Your task to perform on an android device: Go to privacy settings Image 0: 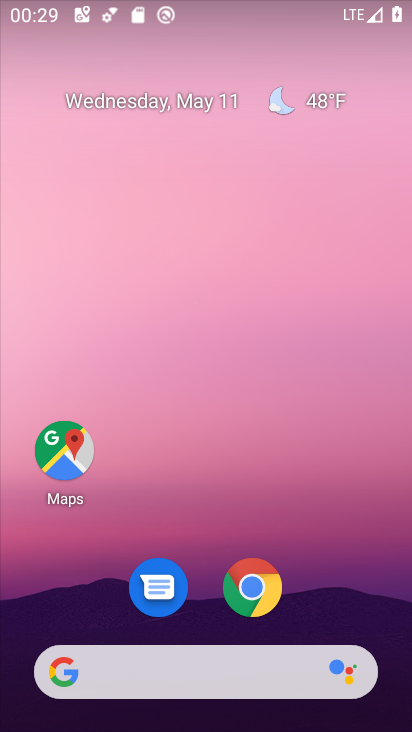
Step 0: drag from (361, 617) to (275, 254)
Your task to perform on an android device: Go to privacy settings Image 1: 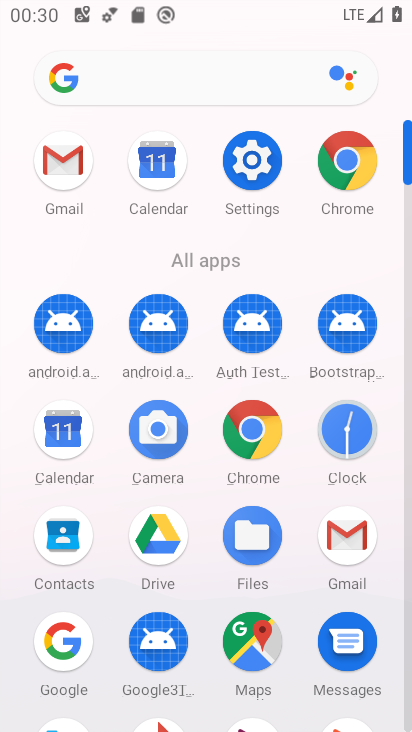
Step 1: click (244, 174)
Your task to perform on an android device: Go to privacy settings Image 2: 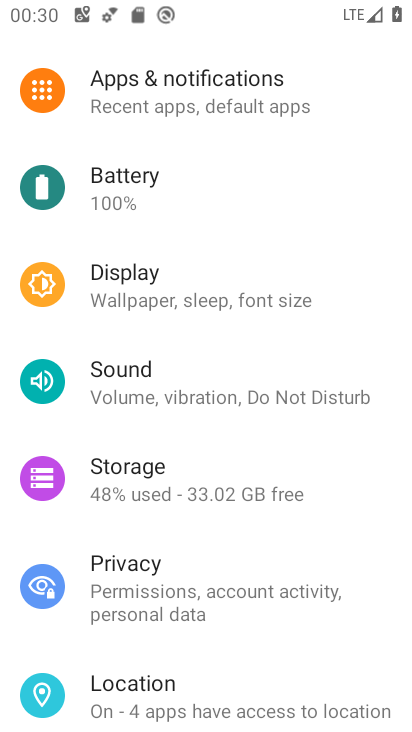
Step 2: click (179, 588)
Your task to perform on an android device: Go to privacy settings Image 3: 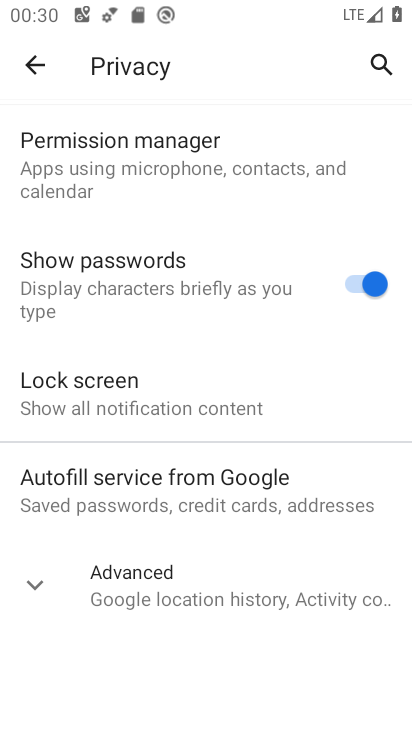
Step 3: task complete